Your task to perform on an android device: add a contact in the contacts app Image 0: 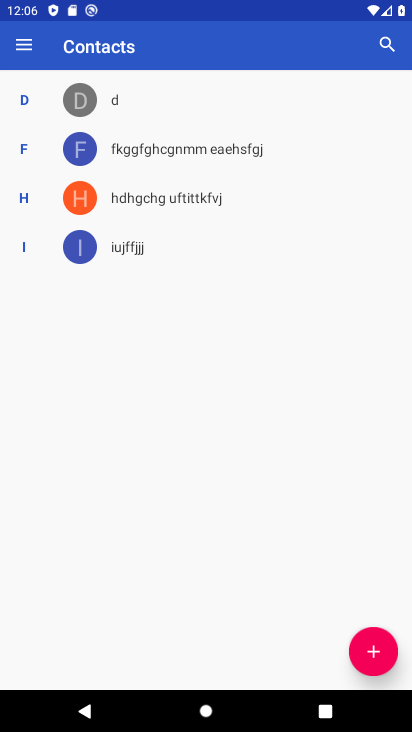
Step 0: click (360, 641)
Your task to perform on an android device: add a contact in the contacts app Image 1: 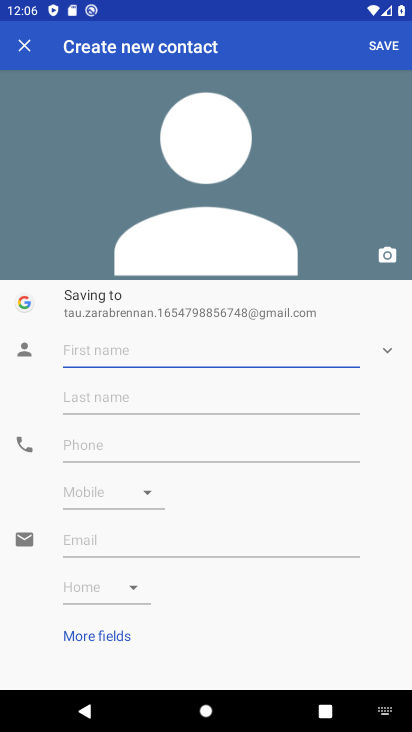
Step 1: type ";lhkgjk"
Your task to perform on an android device: add a contact in the contacts app Image 2: 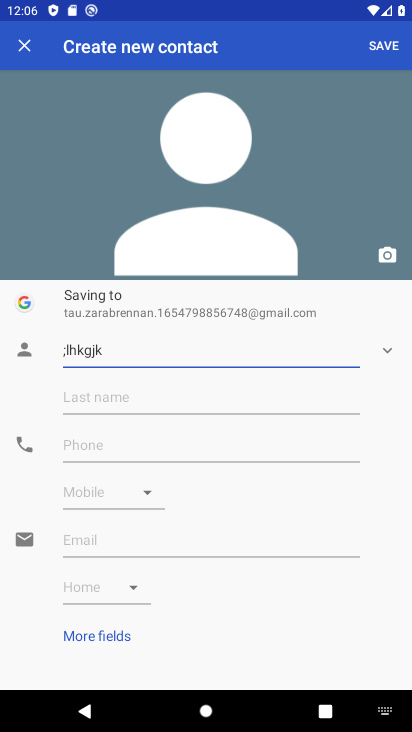
Step 2: click (241, 401)
Your task to perform on an android device: add a contact in the contacts app Image 3: 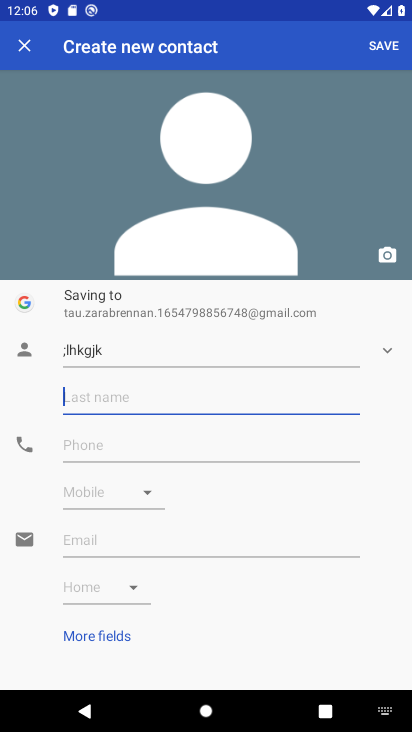
Step 3: type "mhvjfc"
Your task to perform on an android device: add a contact in the contacts app Image 4: 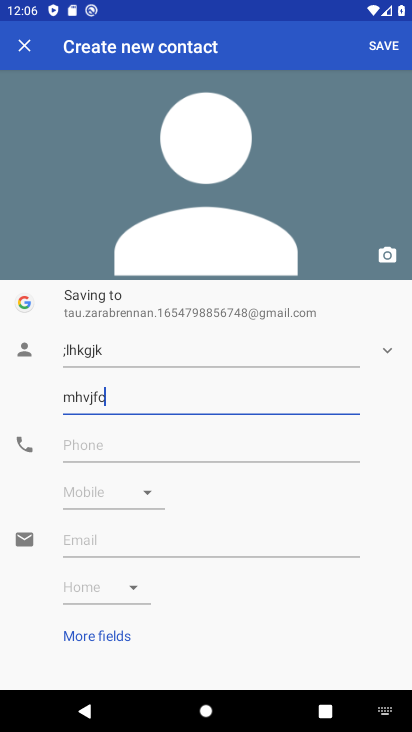
Step 4: click (130, 451)
Your task to perform on an android device: add a contact in the contacts app Image 5: 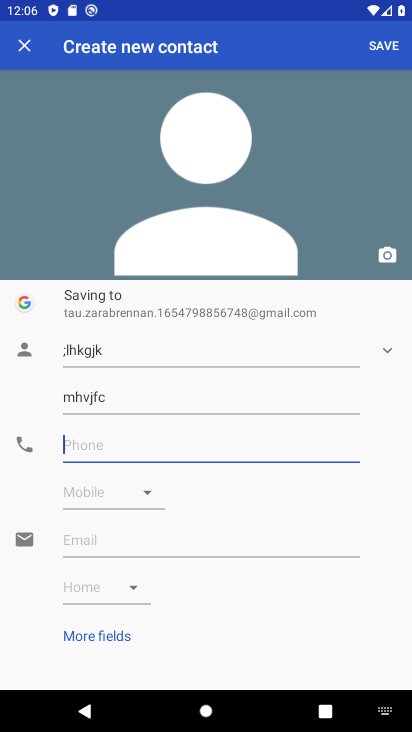
Step 5: type "9877979689"
Your task to perform on an android device: add a contact in the contacts app Image 6: 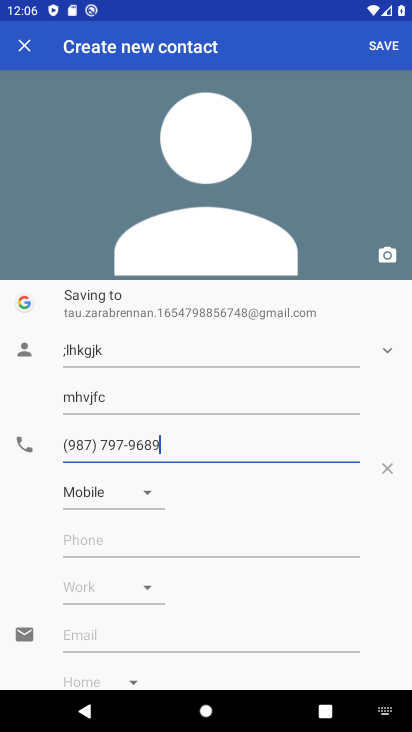
Step 6: click (386, 46)
Your task to perform on an android device: add a contact in the contacts app Image 7: 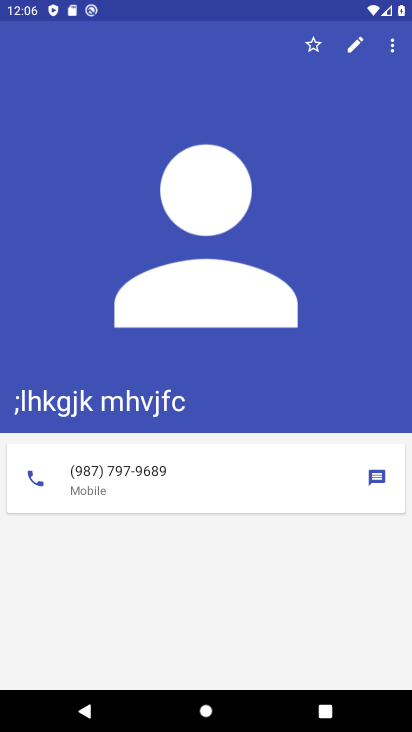
Step 7: task complete